Your task to perform on an android device: open a new tab in the chrome app Image 0: 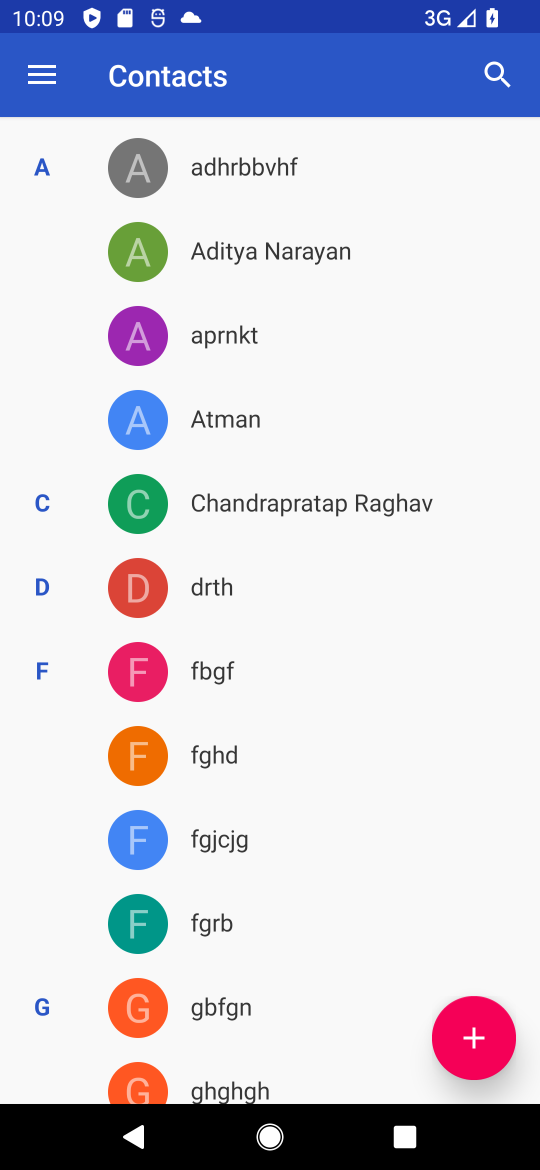
Step 0: press home button
Your task to perform on an android device: open a new tab in the chrome app Image 1: 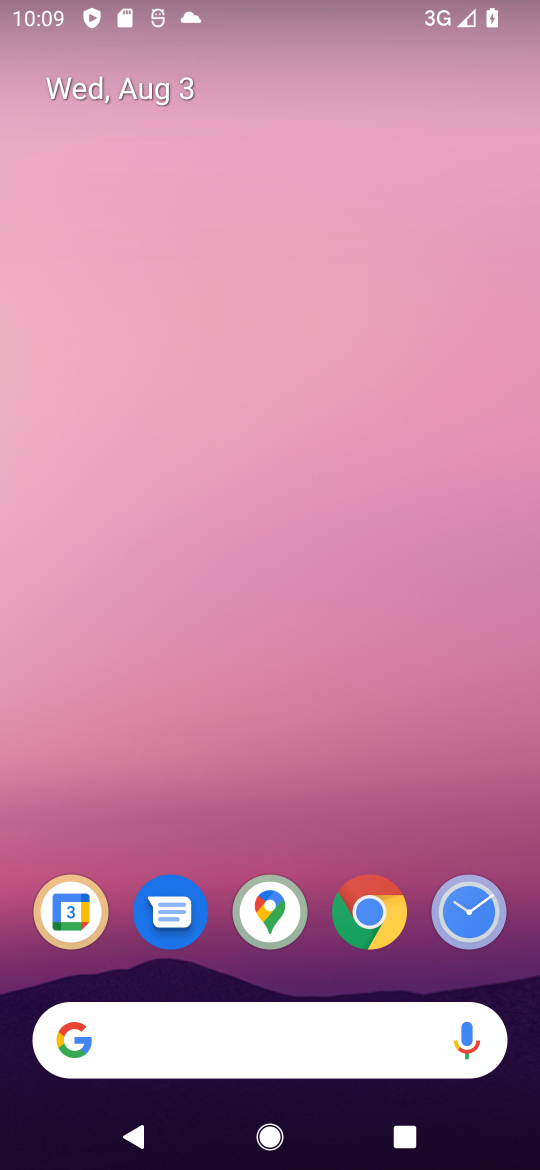
Step 1: drag from (273, 774) to (395, 81)
Your task to perform on an android device: open a new tab in the chrome app Image 2: 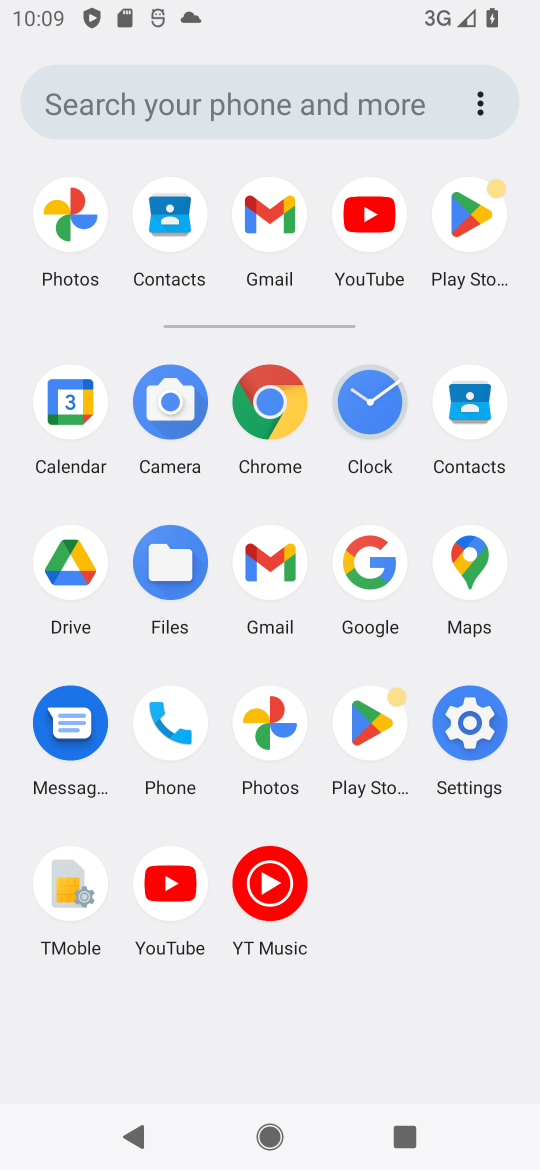
Step 2: click (249, 379)
Your task to perform on an android device: open a new tab in the chrome app Image 3: 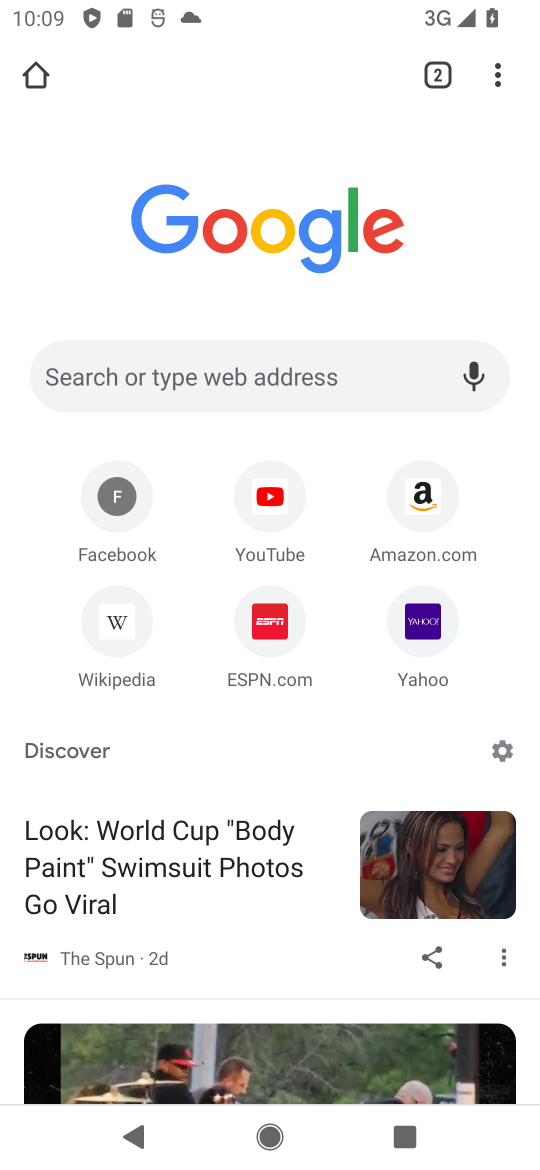
Step 3: task complete